Your task to perform on an android device: Show me the alarms in the clock app Image 0: 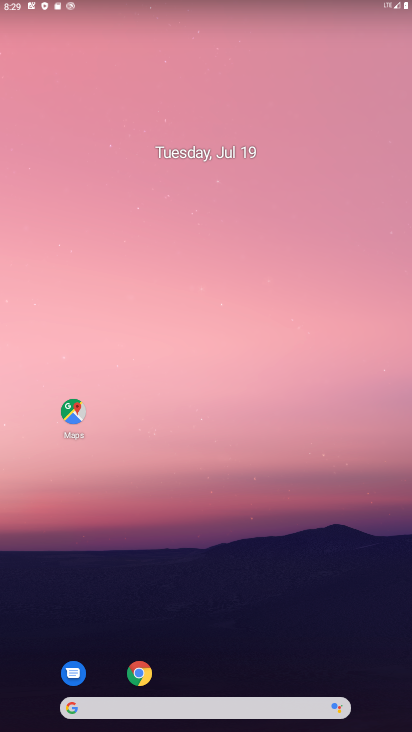
Step 0: drag from (381, 681) to (236, 7)
Your task to perform on an android device: Show me the alarms in the clock app Image 1: 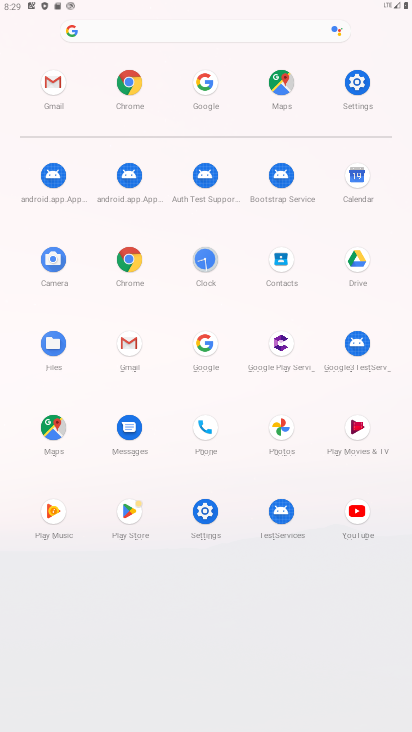
Step 1: click (209, 264)
Your task to perform on an android device: Show me the alarms in the clock app Image 2: 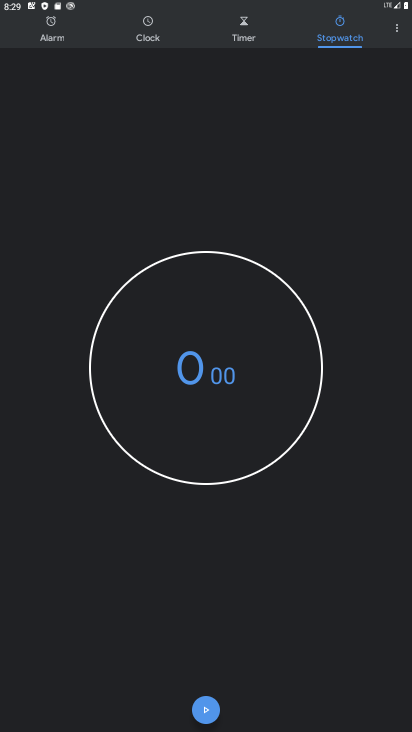
Step 2: click (55, 30)
Your task to perform on an android device: Show me the alarms in the clock app Image 3: 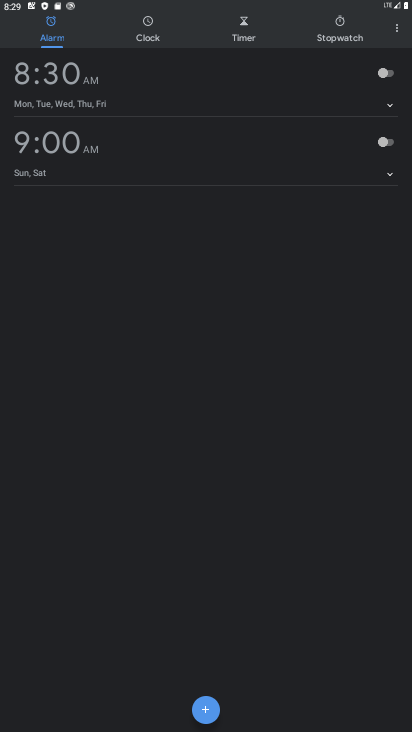
Step 3: task complete